Your task to perform on an android device: toggle notifications settings in the gmail app Image 0: 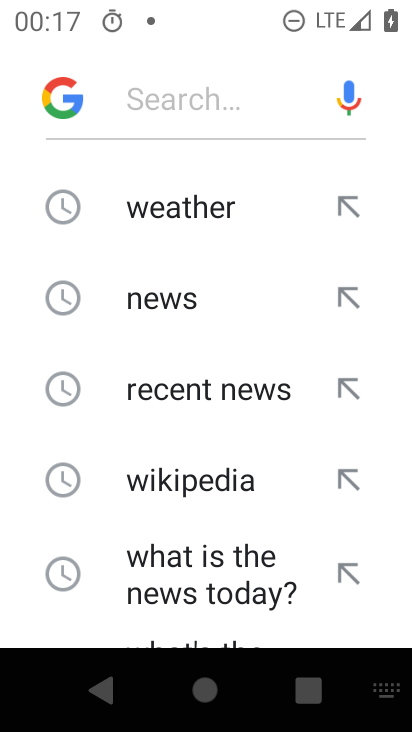
Step 0: drag from (249, 544) to (329, 132)
Your task to perform on an android device: toggle notifications settings in the gmail app Image 1: 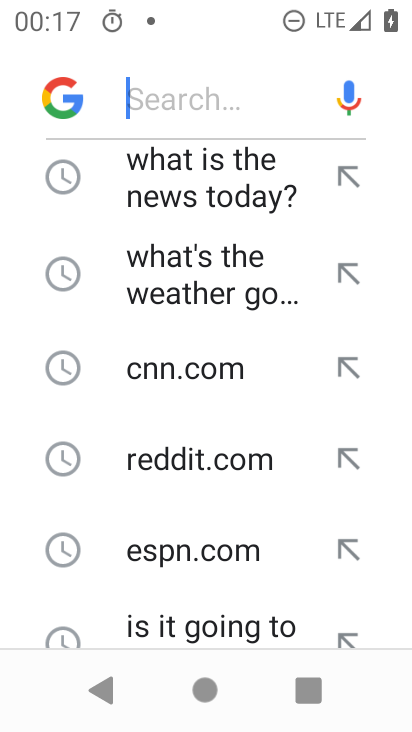
Step 1: press home button
Your task to perform on an android device: toggle notifications settings in the gmail app Image 2: 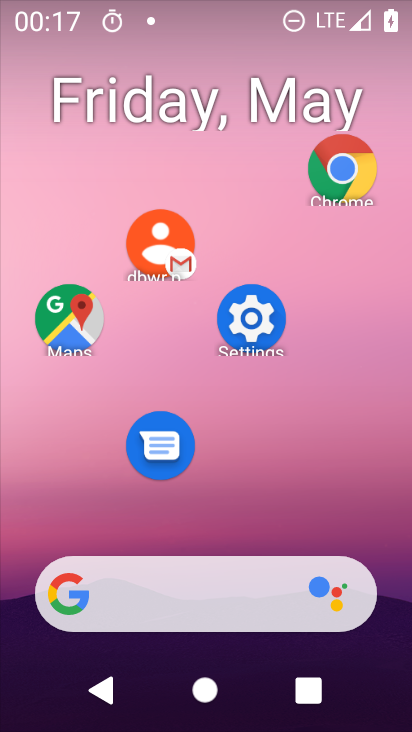
Step 2: click (203, 206)
Your task to perform on an android device: toggle notifications settings in the gmail app Image 3: 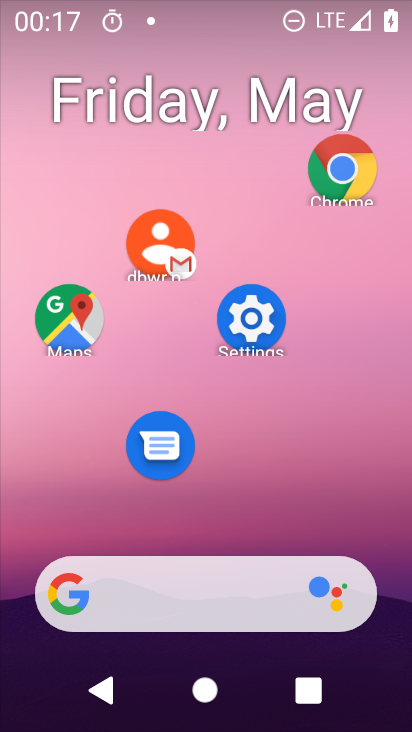
Step 3: drag from (203, 533) to (244, 110)
Your task to perform on an android device: toggle notifications settings in the gmail app Image 4: 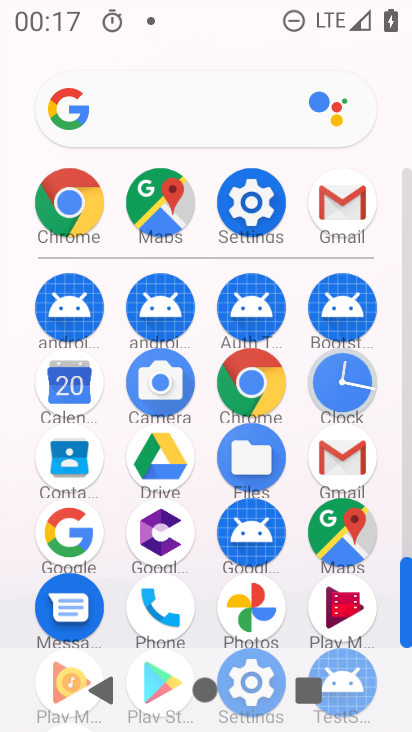
Step 4: click (336, 469)
Your task to perform on an android device: toggle notifications settings in the gmail app Image 5: 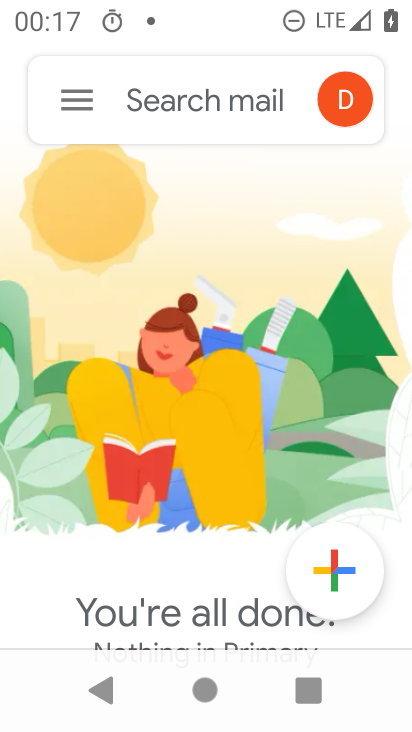
Step 5: drag from (159, 580) to (242, 200)
Your task to perform on an android device: toggle notifications settings in the gmail app Image 6: 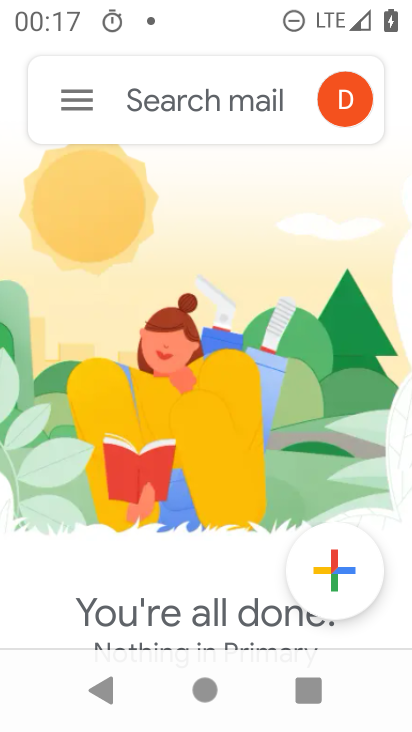
Step 6: click (58, 93)
Your task to perform on an android device: toggle notifications settings in the gmail app Image 7: 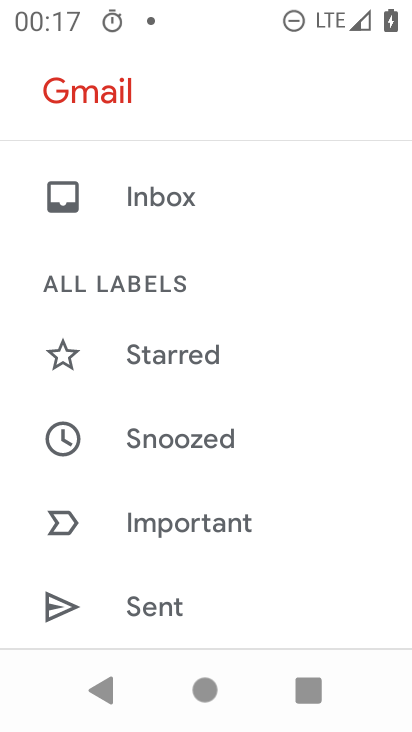
Step 7: drag from (122, 488) to (190, 159)
Your task to perform on an android device: toggle notifications settings in the gmail app Image 8: 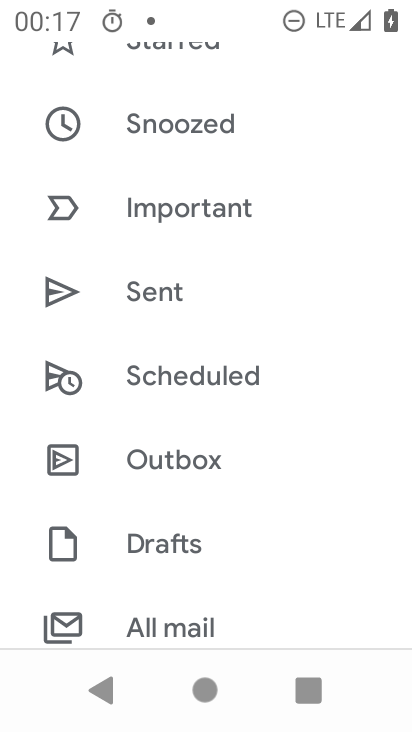
Step 8: drag from (205, 526) to (218, 249)
Your task to perform on an android device: toggle notifications settings in the gmail app Image 9: 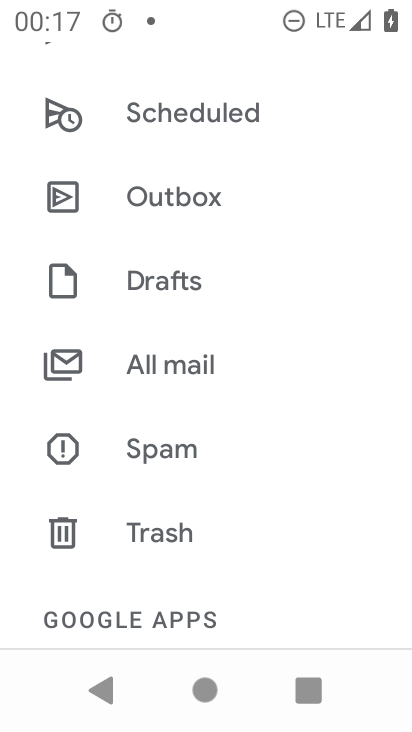
Step 9: drag from (196, 513) to (239, 211)
Your task to perform on an android device: toggle notifications settings in the gmail app Image 10: 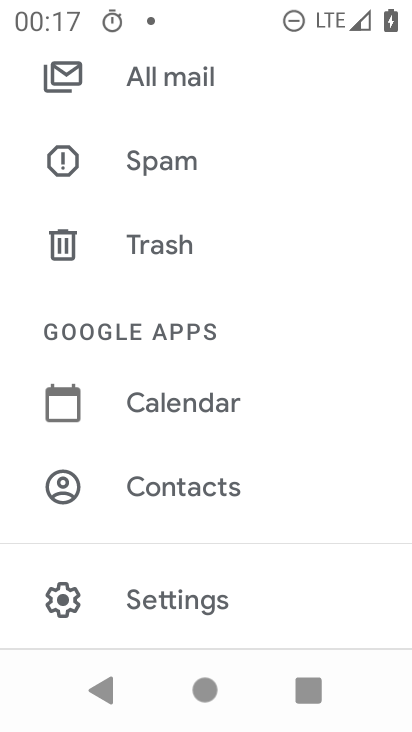
Step 10: click (210, 596)
Your task to perform on an android device: toggle notifications settings in the gmail app Image 11: 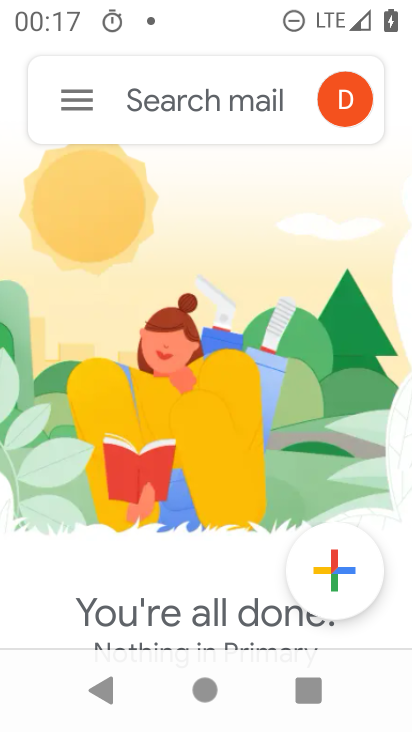
Step 11: drag from (201, 589) to (194, 170)
Your task to perform on an android device: toggle notifications settings in the gmail app Image 12: 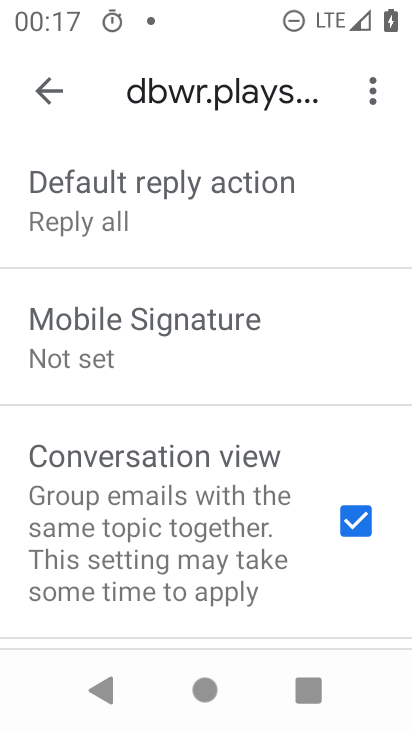
Step 12: drag from (190, 208) to (264, 514)
Your task to perform on an android device: toggle notifications settings in the gmail app Image 13: 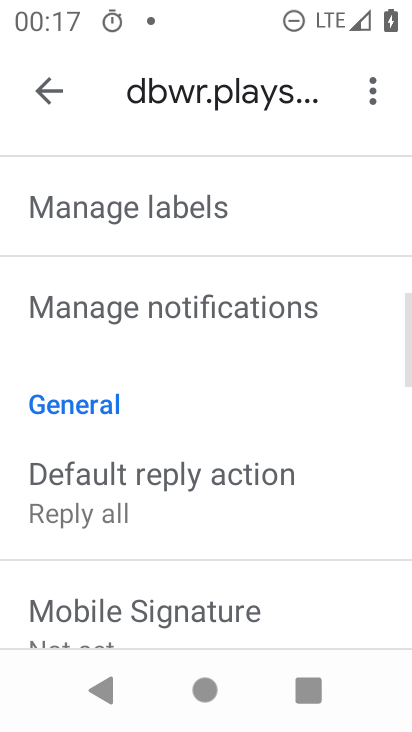
Step 13: drag from (247, 509) to (267, 236)
Your task to perform on an android device: toggle notifications settings in the gmail app Image 14: 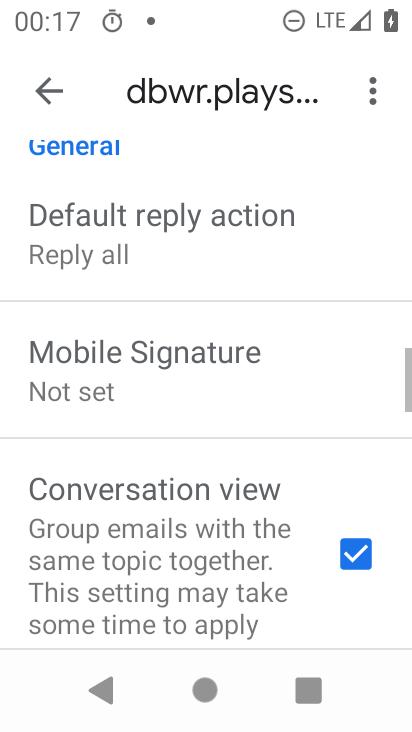
Step 14: drag from (273, 198) to (278, 472)
Your task to perform on an android device: toggle notifications settings in the gmail app Image 15: 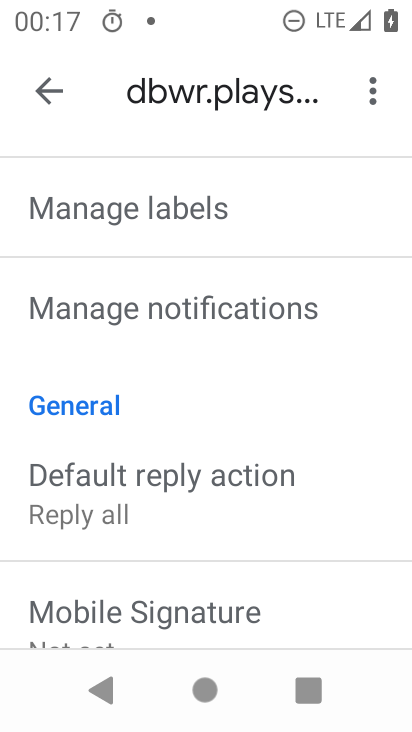
Step 15: click (164, 301)
Your task to perform on an android device: toggle notifications settings in the gmail app Image 16: 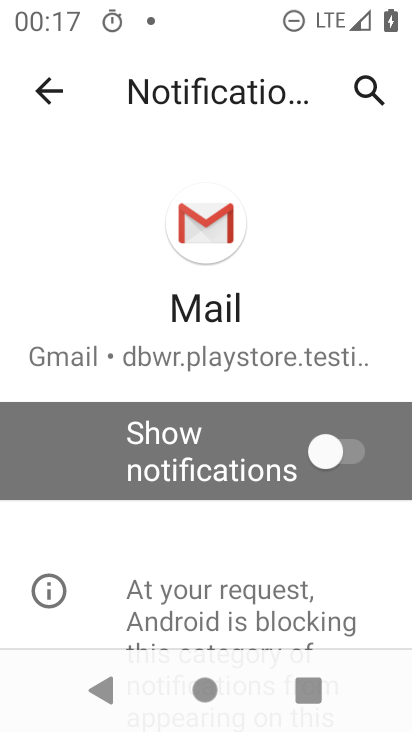
Step 16: click (322, 450)
Your task to perform on an android device: toggle notifications settings in the gmail app Image 17: 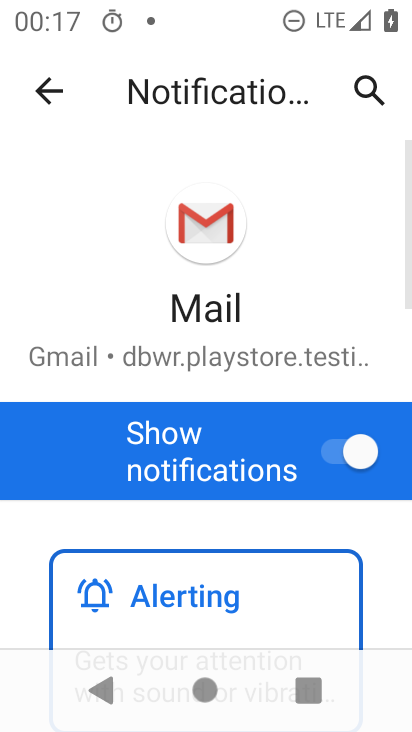
Step 17: task complete